Your task to perform on an android device: turn on wifi Image 0: 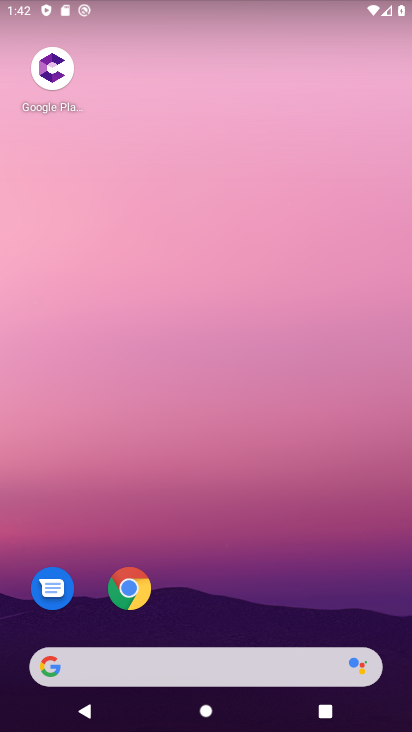
Step 0: drag from (32, 710) to (346, 17)
Your task to perform on an android device: turn on wifi Image 1: 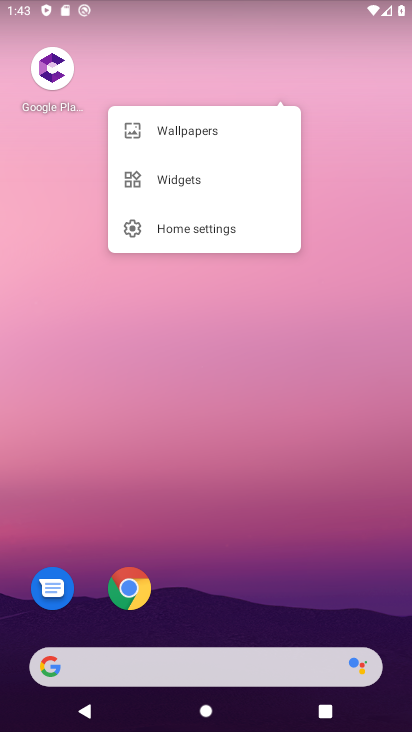
Step 1: drag from (57, 699) to (185, 188)
Your task to perform on an android device: turn on wifi Image 2: 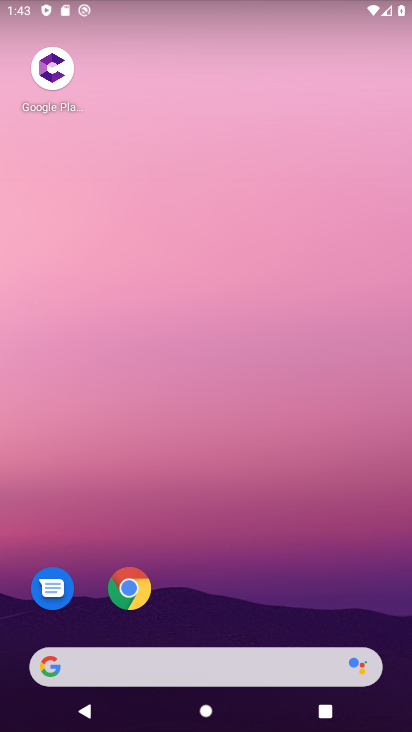
Step 2: drag from (32, 634) to (199, 103)
Your task to perform on an android device: turn on wifi Image 3: 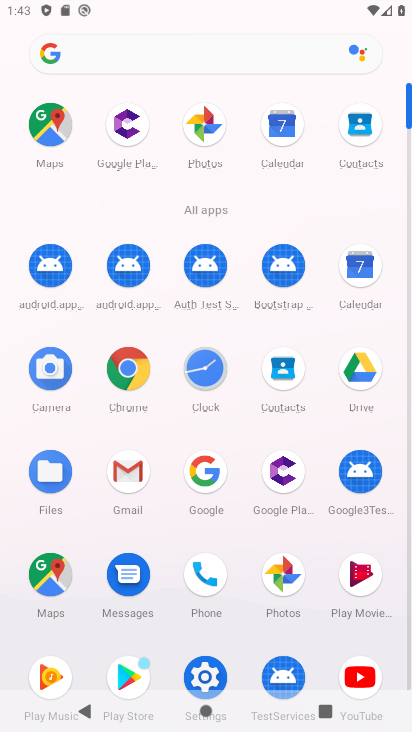
Step 3: click (197, 670)
Your task to perform on an android device: turn on wifi Image 4: 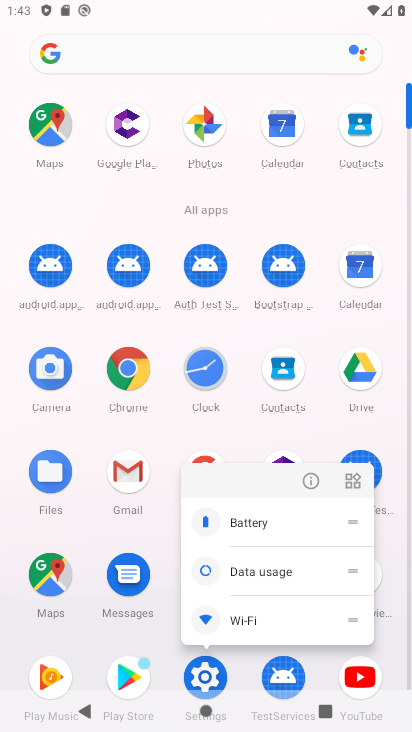
Step 4: click (202, 685)
Your task to perform on an android device: turn on wifi Image 5: 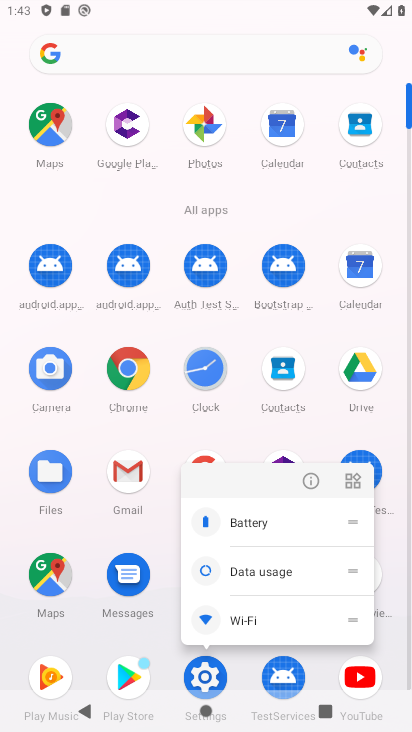
Step 5: click (184, 661)
Your task to perform on an android device: turn on wifi Image 6: 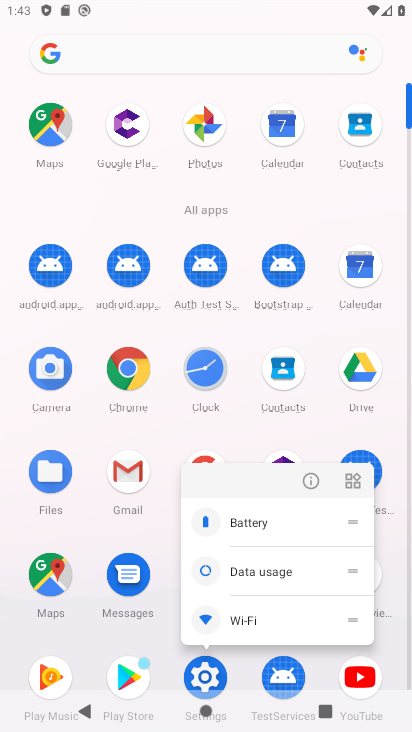
Step 6: click (187, 665)
Your task to perform on an android device: turn on wifi Image 7: 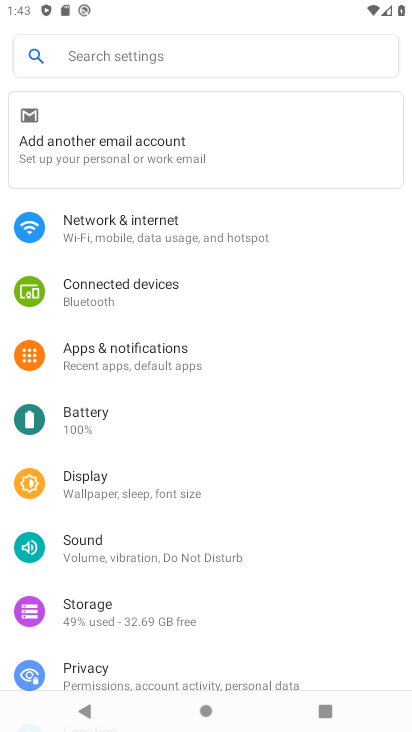
Step 7: click (112, 226)
Your task to perform on an android device: turn on wifi Image 8: 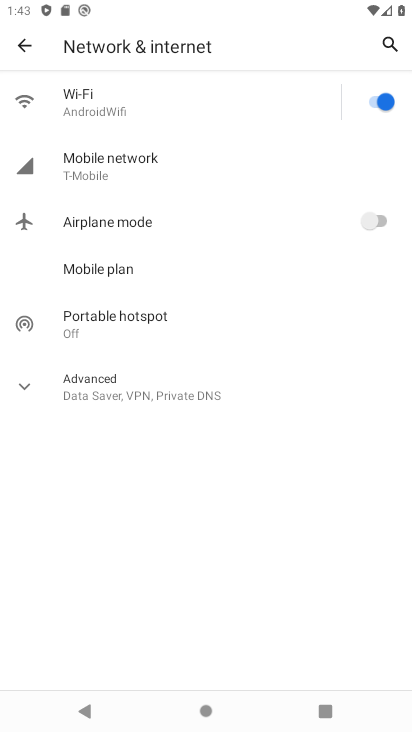
Step 8: click (93, 97)
Your task to perform on an android device: turn on wifi Image 9: 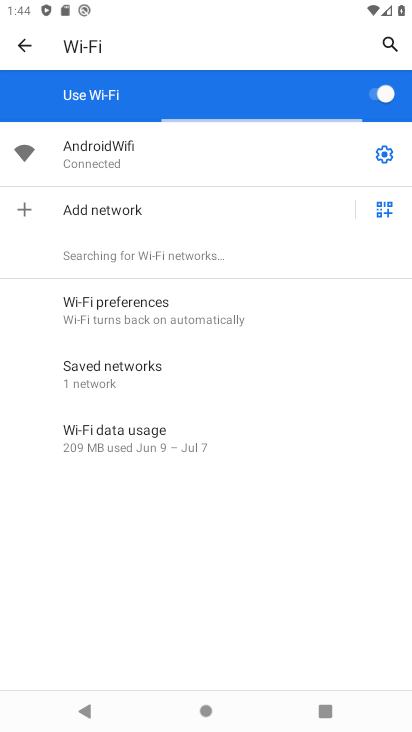
Step 9: task complete